Your task to perform on an android device: turn on bluetooth scan Image 0: 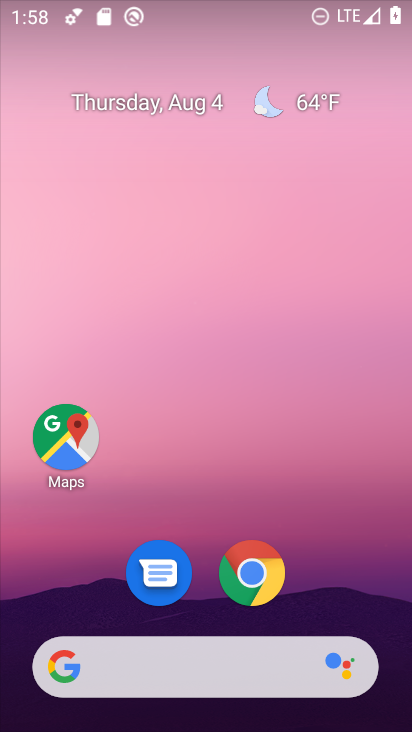
Step 0: drag from (367, 541) to (315, 111)
Your task to perform on an android device: turn on bluetooth scan Image 1: 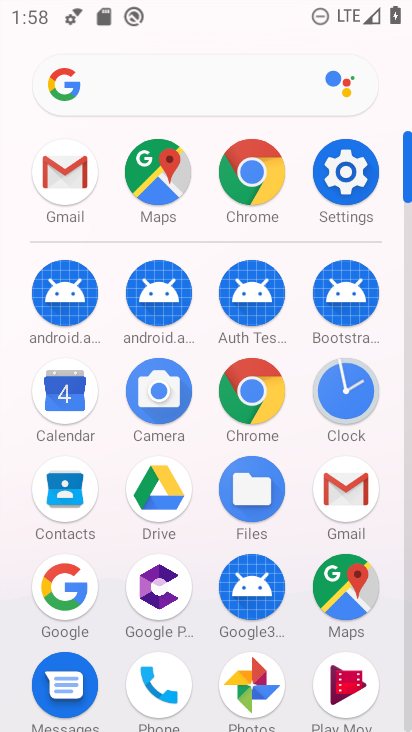
Step 1: click (345, 169)
Your task to perform on an android device: turn on bluetooth scan Image 2: 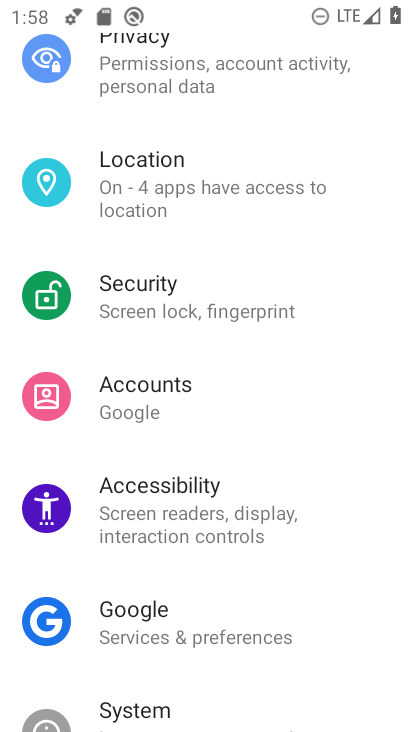
Step 2: drag from (286, 114) to (251, 361)
Your task to perform on an android device: turn on bluetooth scan Image 3: 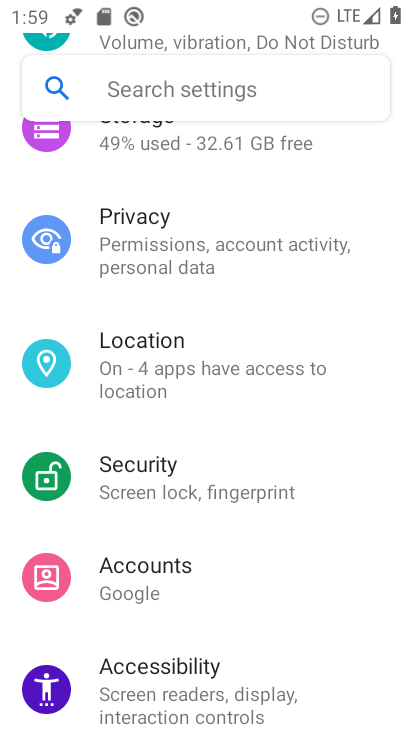
Step 3: click (146, 371)
Your task to perform on an android device: turn on bluetooth scan Image 4: 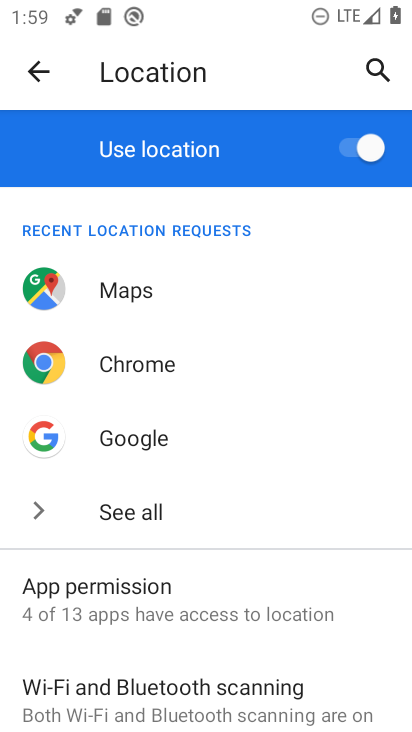
Step 4: click (196, 694)
Your task to perform on an android device: turn on bluetooth scan Image 5: 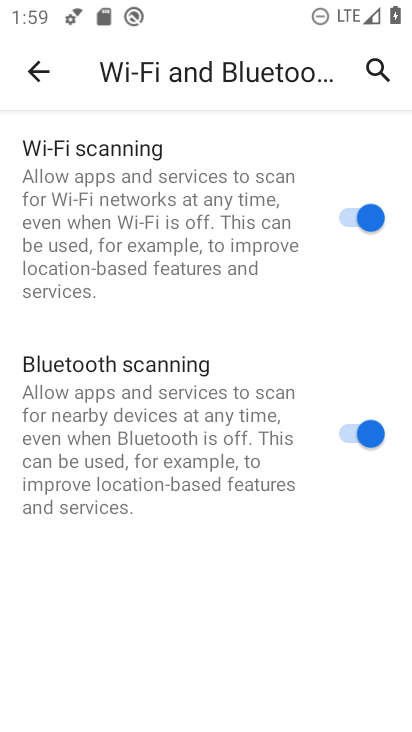
Step 5: task complete